Your task to perform on an android device: change text size in settings app Image 0: 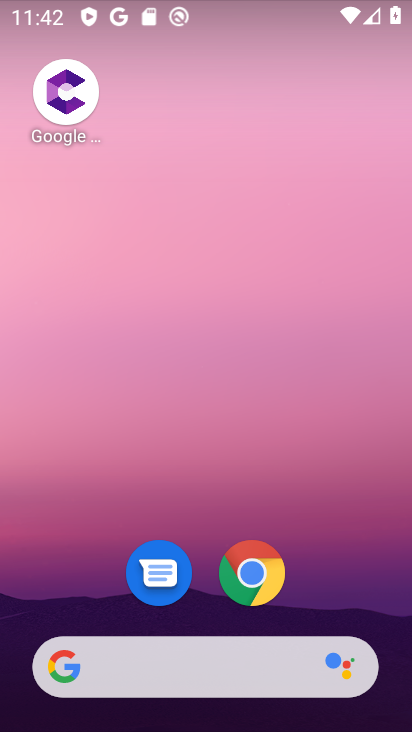
Step 0: drag from (390, 615) to (278, 52)
Your task to perform on an android device: change text size in settings app Image 1: 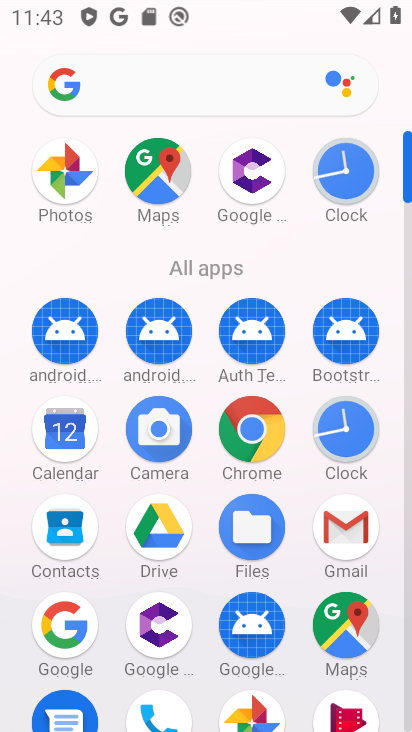
Step 1: drag from (298, 674) to (276, 152)
Your task to perform on an android device: change text size in settings app Image 2: 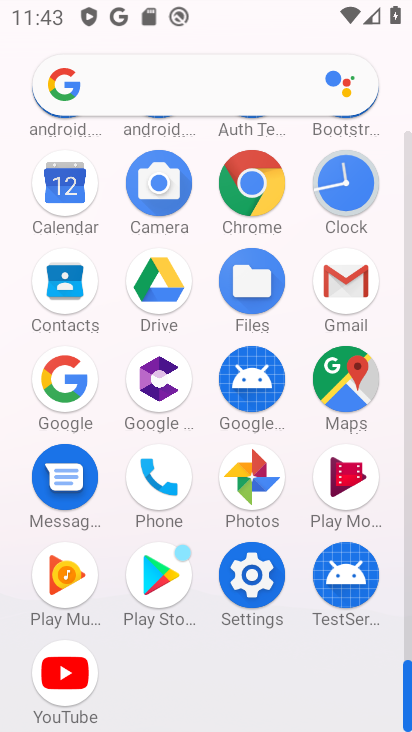
Step 2: click (236, 566)
Your task to perform on an android device: change text size in settings app Image 3: 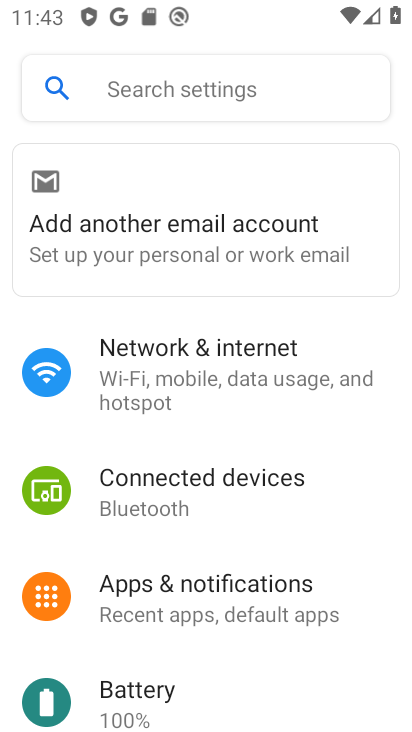
Step 3: drag from (168, 688) to (136, 209)
Your task to perform on an android device: change text size in settings app Image 4: 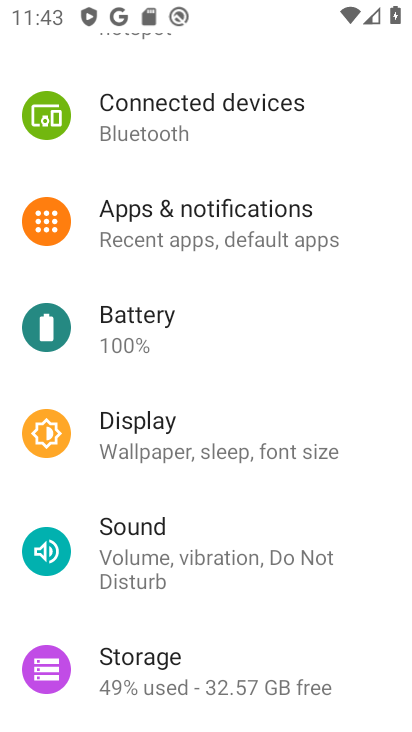
Step 4: click (205, 456)
Your task to perform on an android device: change text size in settings app Image 5: 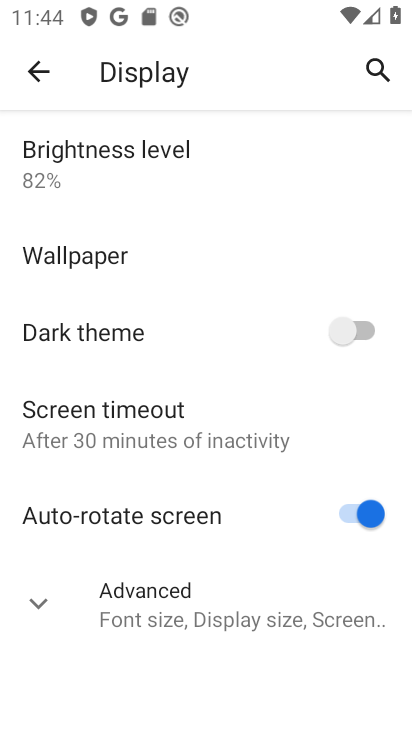
Step 5: click (185, 596)
Your task to perform on an android device: change text size in settings app Image 6: 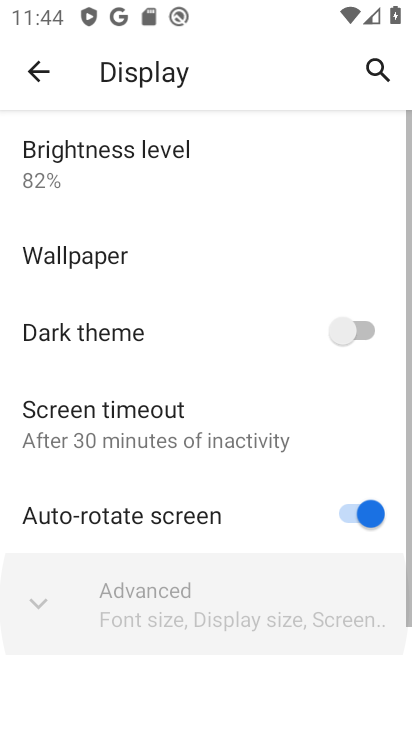
Step 6: drag from (190, 637) to (220, 242)
Your task to perform on an android device: change text size in settings app Image 7: 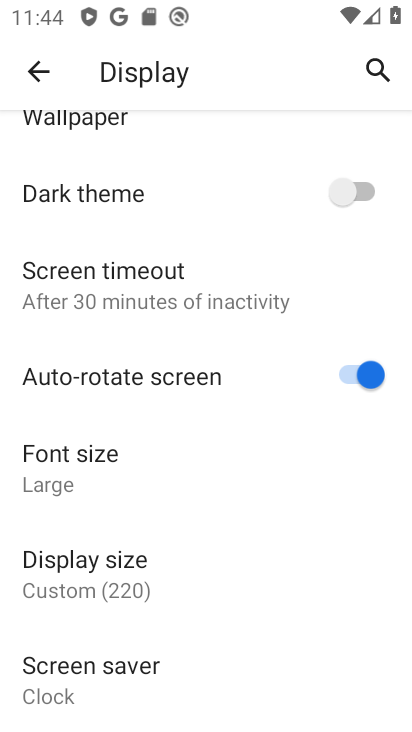
Step 7: click (78, 474)
Your task to perform on an android device: change text size in settings app Image 8: 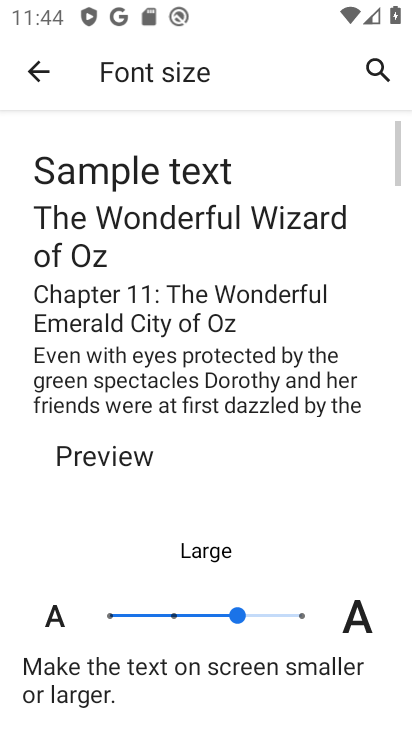
Step 8: click (175, 617)
Your task to perform on an android device: change text size in settings app Image 9: 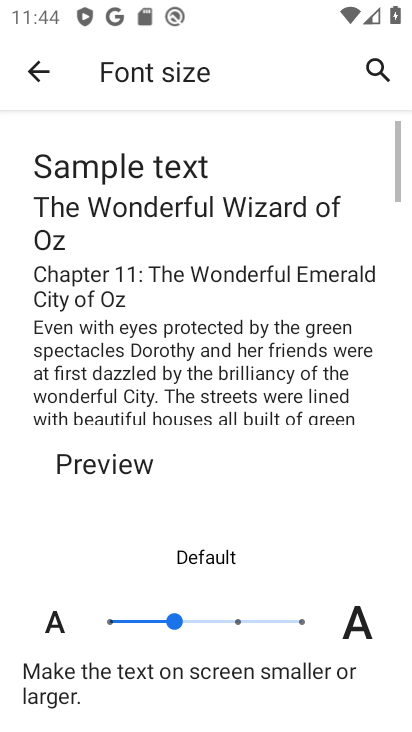
Step 9: task complete